Your task to perform on an android device: turn off javascript in the chrome app Image 0: 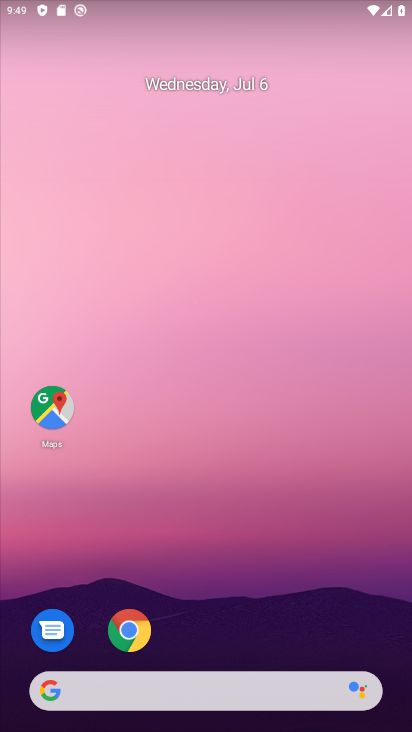
Step 0: drag from (218, 690) to (233, 113)
Your task to perform on an android device: turn off javascript in the chrome app Image 1: 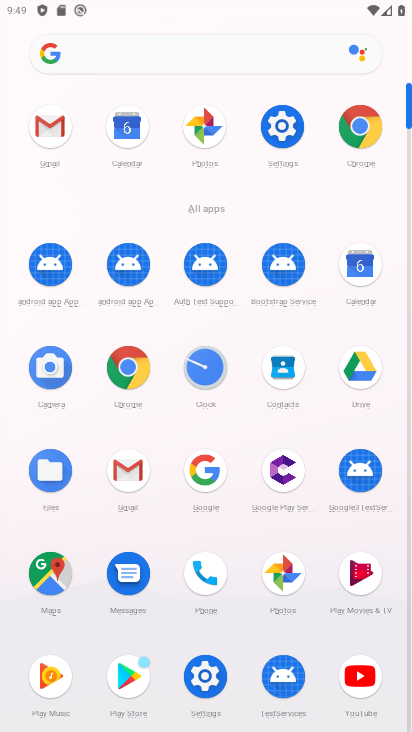
Step 1: click (358, 119)
Your task to perform on an android device: turn off javascript in the chrome app Image 2: 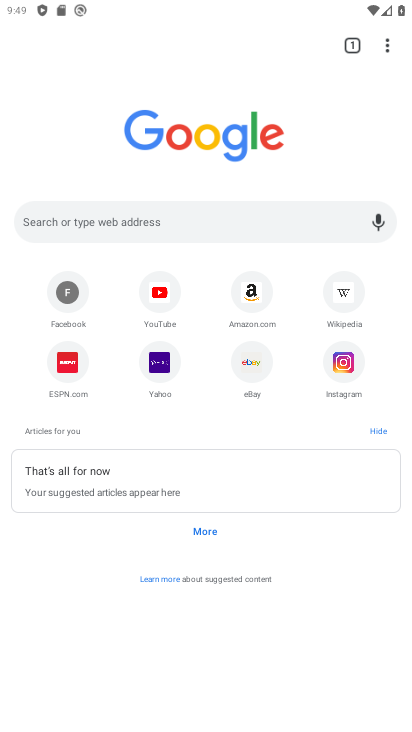
Step 2: drag from (385, 44) to (238, 388)
Your task to perform on an android device: turn off javascript in the chrome app Image 3: 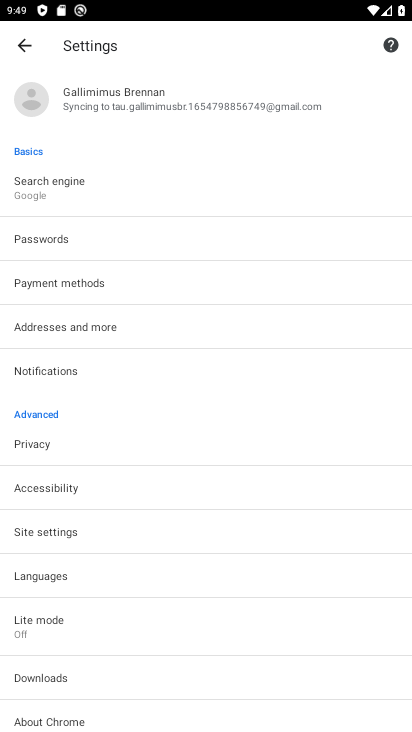
Step 3: click (69, 523)
Your task to perform on an android device: turn off javascript in the chrome app Image 4: 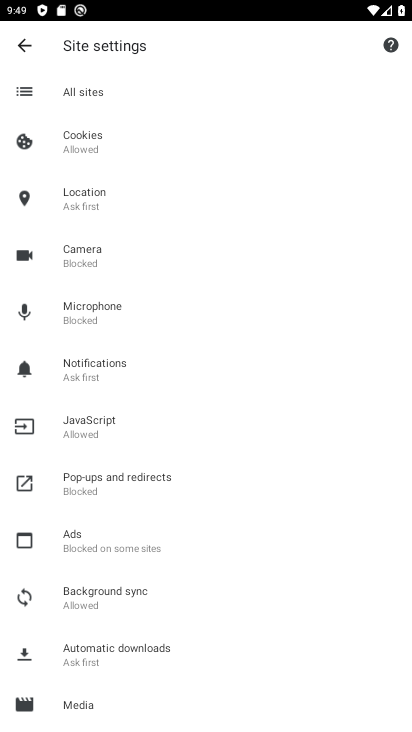
Step 4: click (55, 426)
Your task to perform on an android device: turn off javascript in the chrome app Image 5: 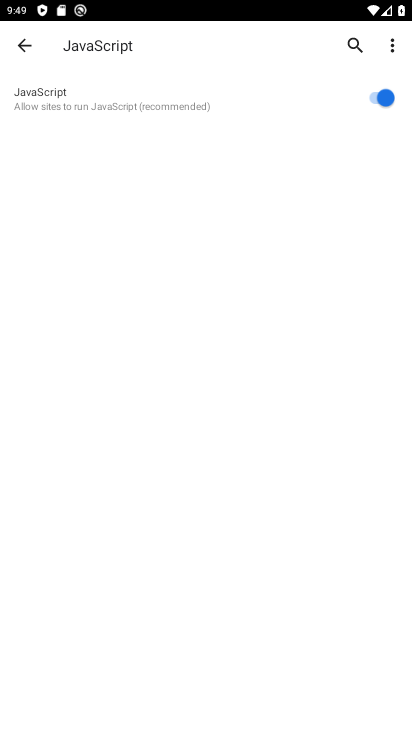
Step 5: click (247, 97)
Your task to perform on an android device: turn off javascript in the chrome app Image 6: 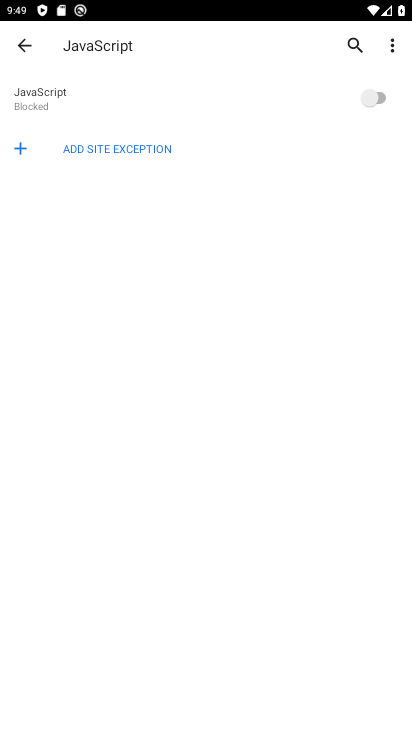
Step 6: task complete